Your task to perform on an android device: Go to internet settings Image 0: 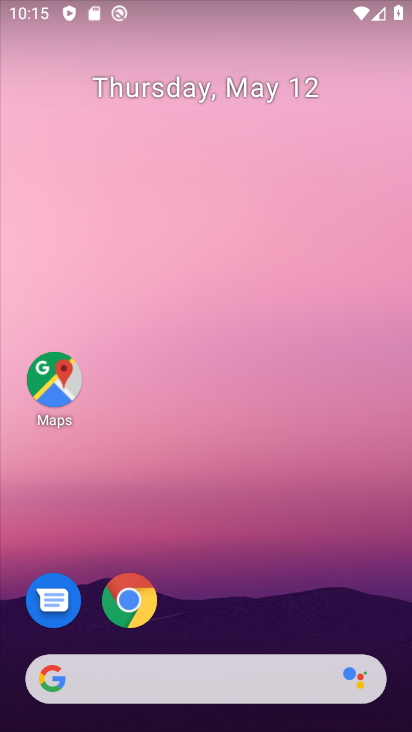
Step 0: drag from (210, 633) to (282, 6)
Your task to perform on an android device: Go to internet settings Image 1: 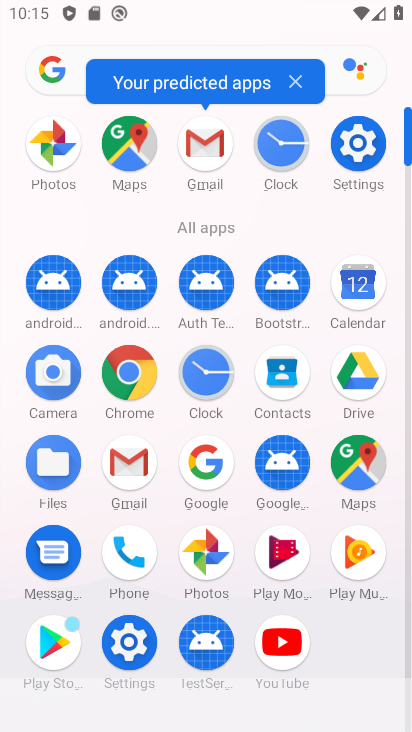
Step 1: click (135, 644)
Your task to perform on an android device: Go to internet settings Image 2: 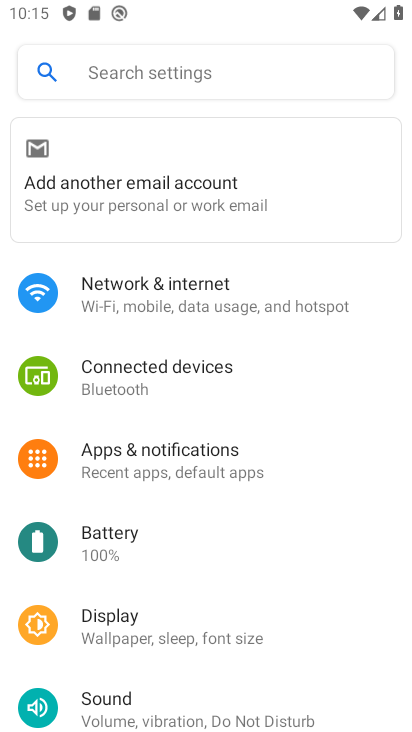
Step 2: click (156, 315)
Your task to perform on an android device: Go to internet settings Image 3: 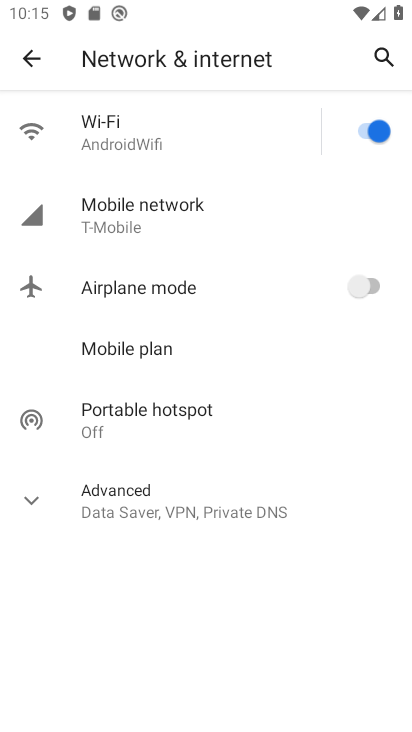
Step 3: task complete